Your task to perform on an android device: toggle notifications settings in the gmail app Image 0: 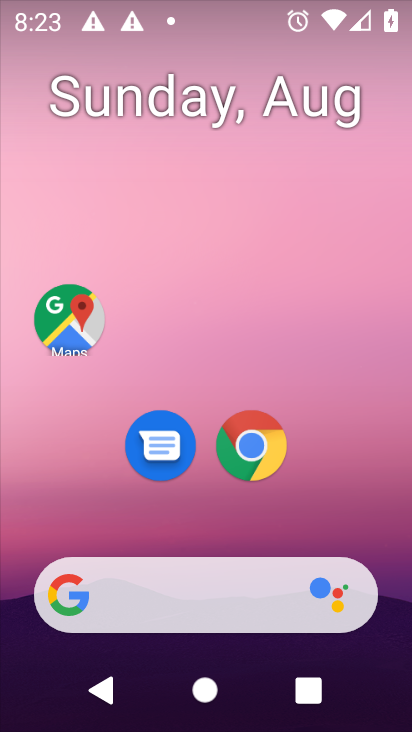
Step 0: press home button
Your task to perform on an android device: toggle notifications settings in the gmail app Image 1: 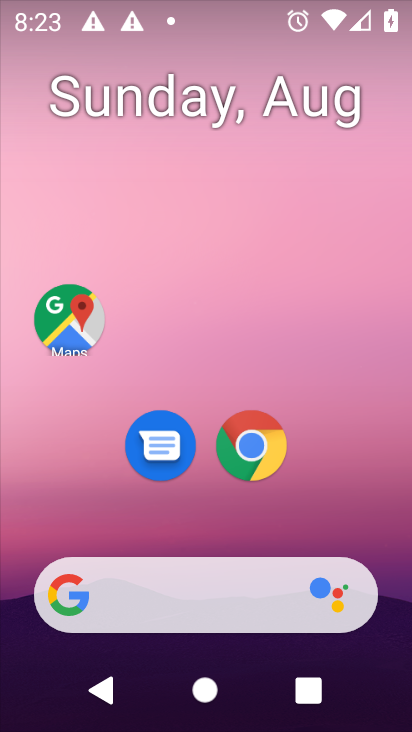
Step 1: drag from (208, 523) to (212, 72)
Your task to perform on an android device: toggle notifications settings in the gmail app Image 2: 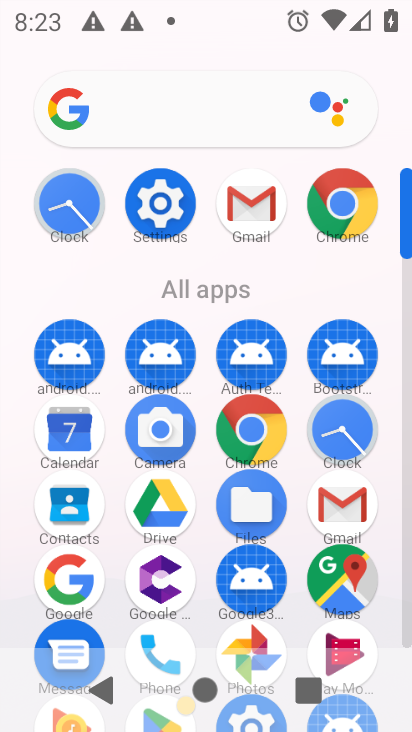
Step 2: click (248, 195)
Your task to perform on an android device: toggle notifications settings in the gmail app Image 3: 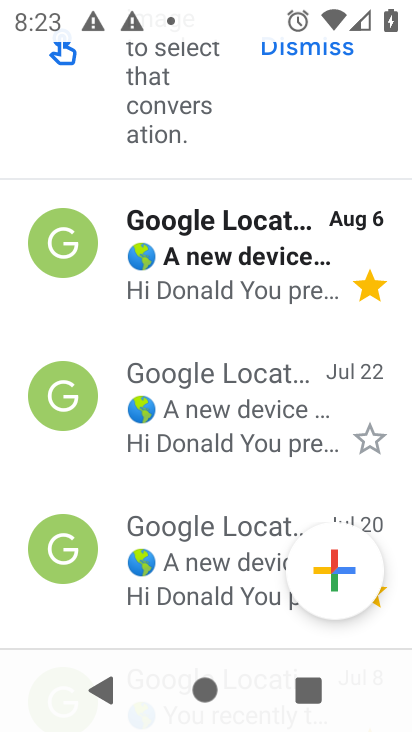
Step 3: drag from (196, 159) to (195, 447)
Your task to perform on an android device: toggle notifications settings in the gmail app Image 4: 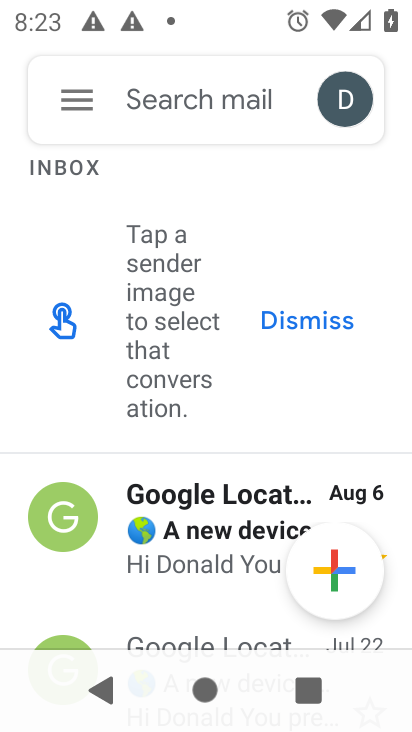
Step 4: click (76, 98)
Your task to perform on an android device: toggle notifications settings in the gmail app Image 5: 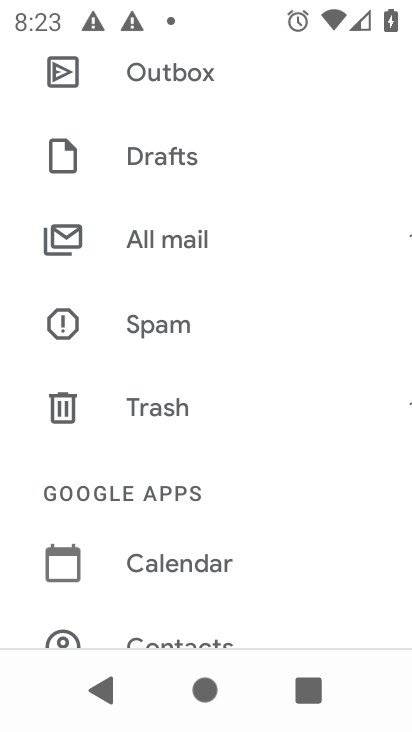
Step 5: drag from (132, 589) to (183, 152)
Your task to perform on an android device: toggle notifications settings in the gmail app Image 6: 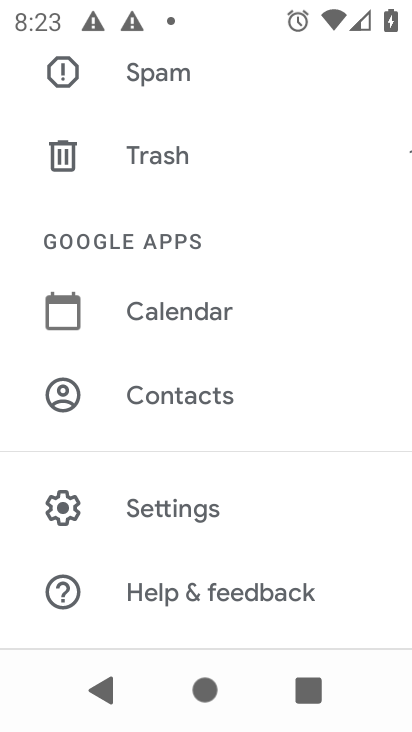
Step 6: click (115, 498)
Your task to perform on an android device: toggle notifications settings in the gmail app Image 7: 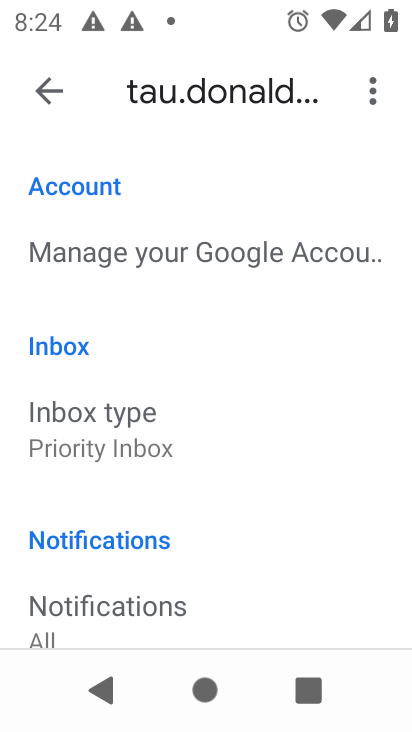
Step 7: click (50, 94)
Your task to perform on an android device: toggle notifications settings in the gmail app Image 8: 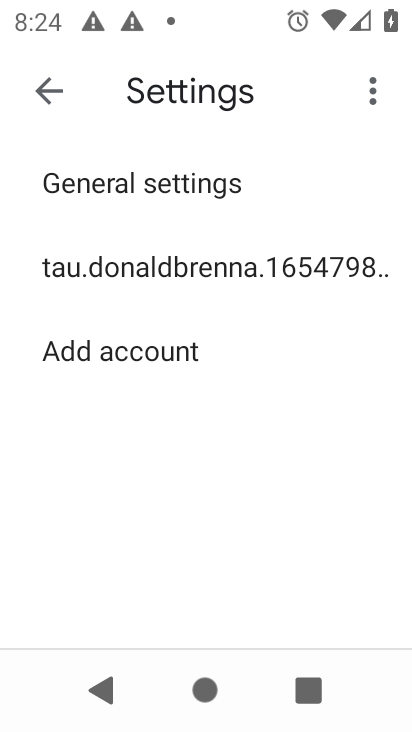
Step 8: click (137, 184)
Your task to perform on an android device: toggle notifications settings in the gmail app Image 9: 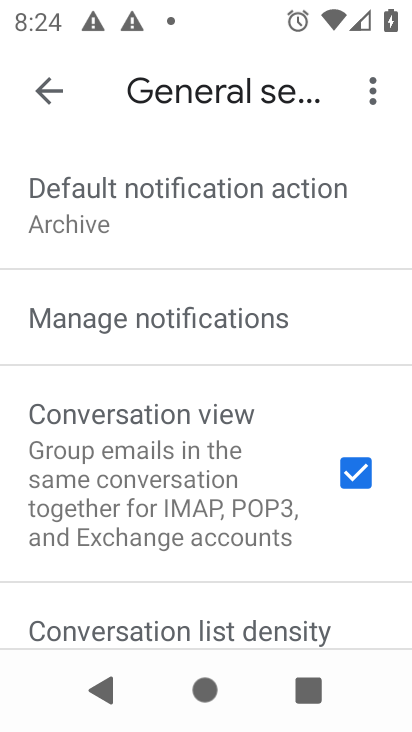
Step 9: click (293, 327)
Your task to perform on an android device: toggle notifications settings in the gmail app Image 10: 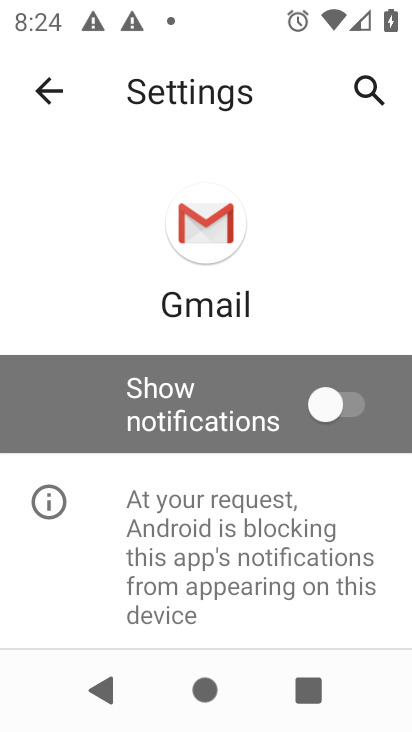
Step 10: click (352, 407)
Your task to perform on an android device: toggle notifications settings in the gmail app Image 11: 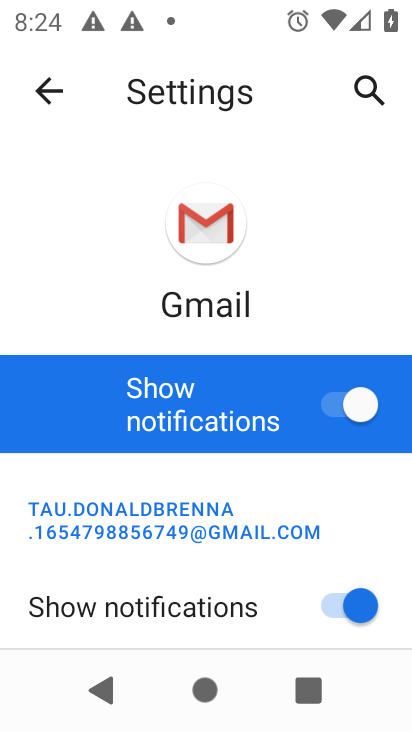
Step 11: task complete